Your task to perform on an android device: Go to Android settings Image 0: 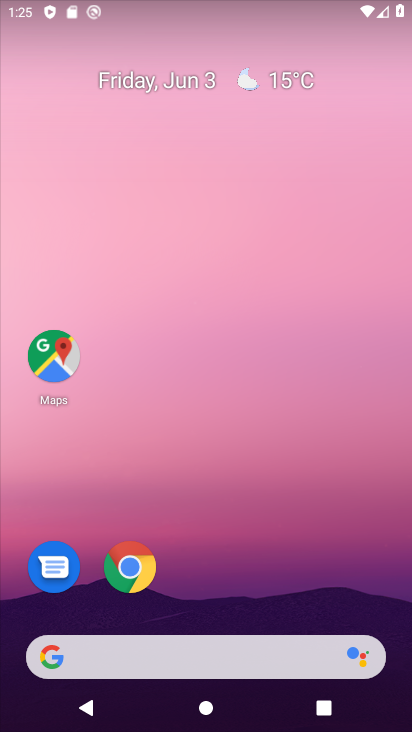
Step 0: drag from (224, 635) to (297, 11)
Your task to perform on an android device: Go to Android settings Image 1: 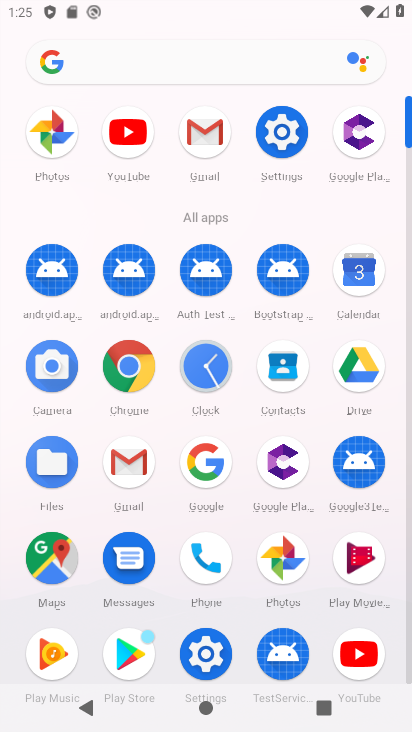
Step 1: click (206, 644)
Your task to perform on an android device: Go to Android settings Image 2: 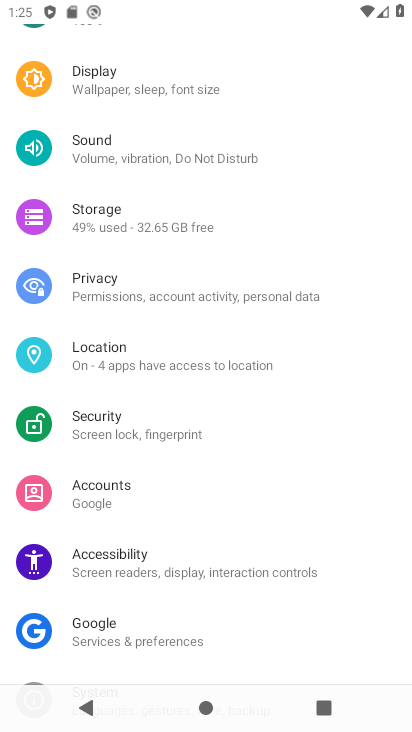
Step 2: task complete